Your task to perform on an android device: set an alarm Image 0: 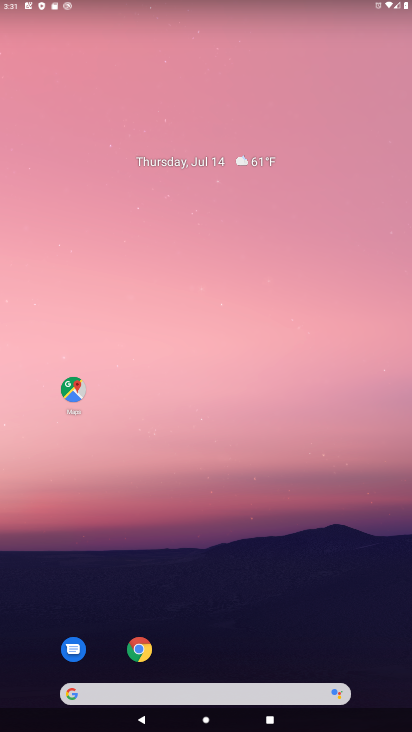
Step 0: drag from (178, 693) to (191, 114)
Your task to perform on an android device: set an alarm Image 1: 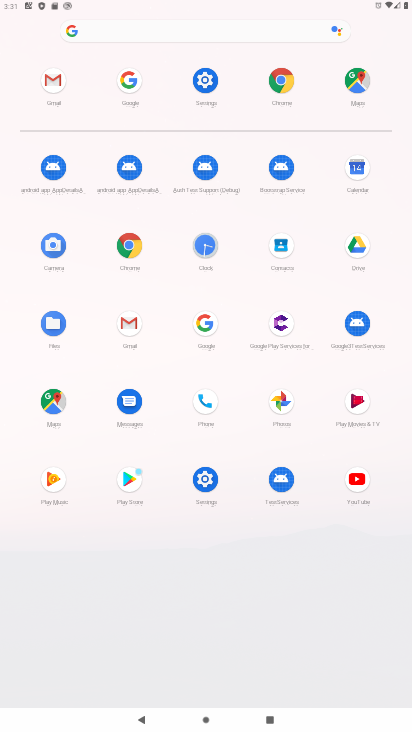
Step 1: click (212, 238)
Your task to perform on an android device: set an alarm Image 2: 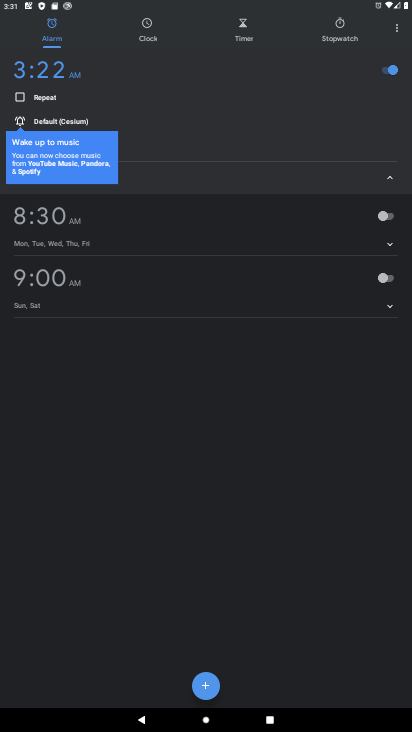
Step 2: click (201, 672)
Your task to perform on an android device: set an alarm Image 3: 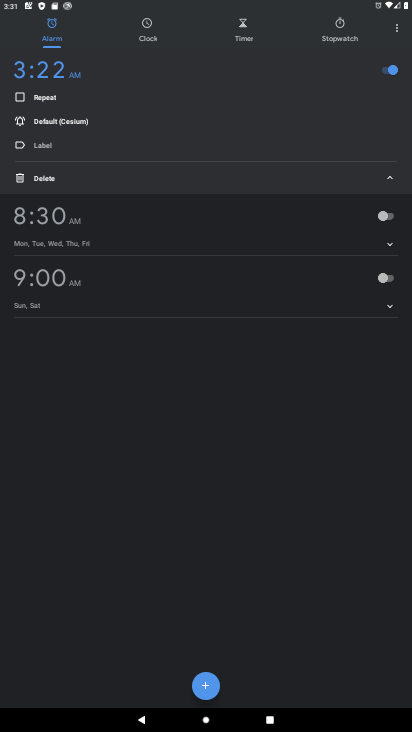
Step 3: click (211, 676)
Your task to perform on an android device: set an alarm Image 4: 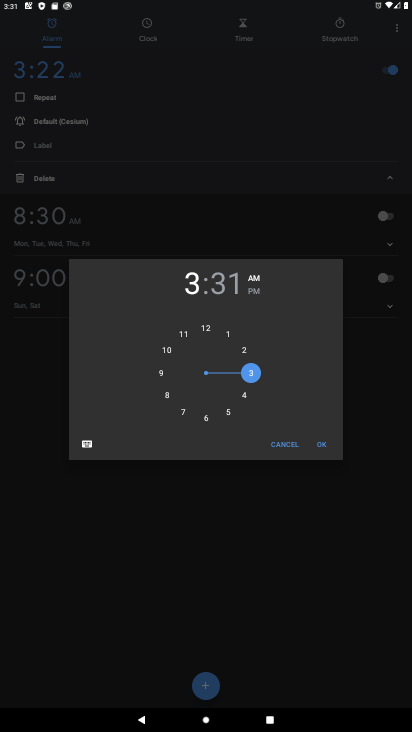
Step 4: click (311, 445)
Your task to perform on an android device: set an alarm Image 5: 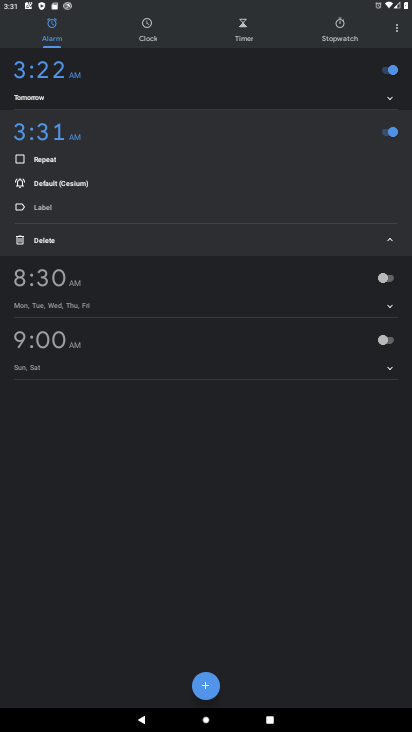
Step 5: task complete